Your task to perform on an android device: install app "NewsBreak: Local News & Alerts" Image 0: 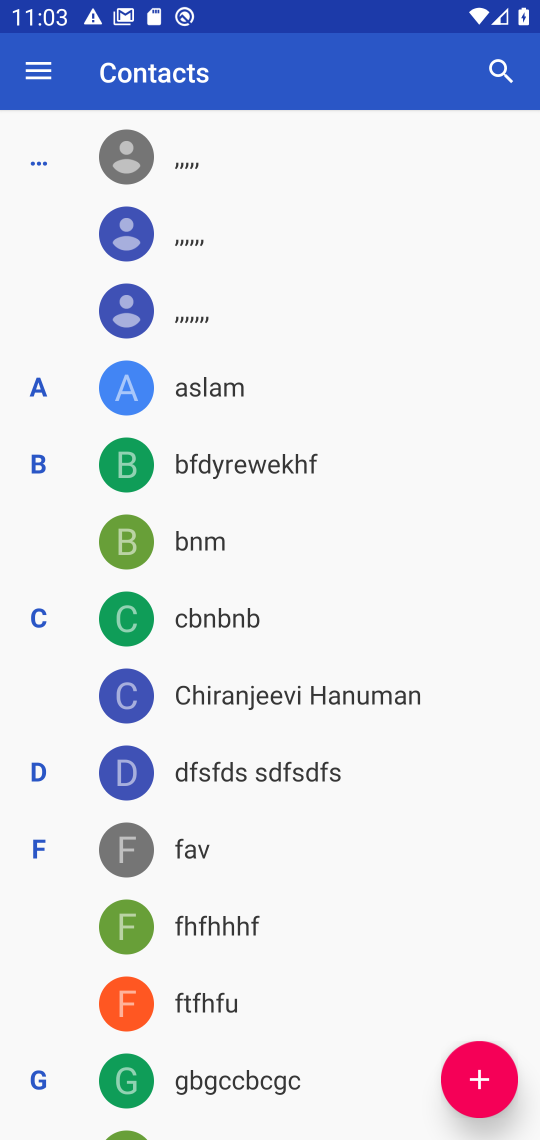
Step 0: press home button
Your task to perform on an android device: install app "NewsBreak: Local News & Alerts" Image 1: 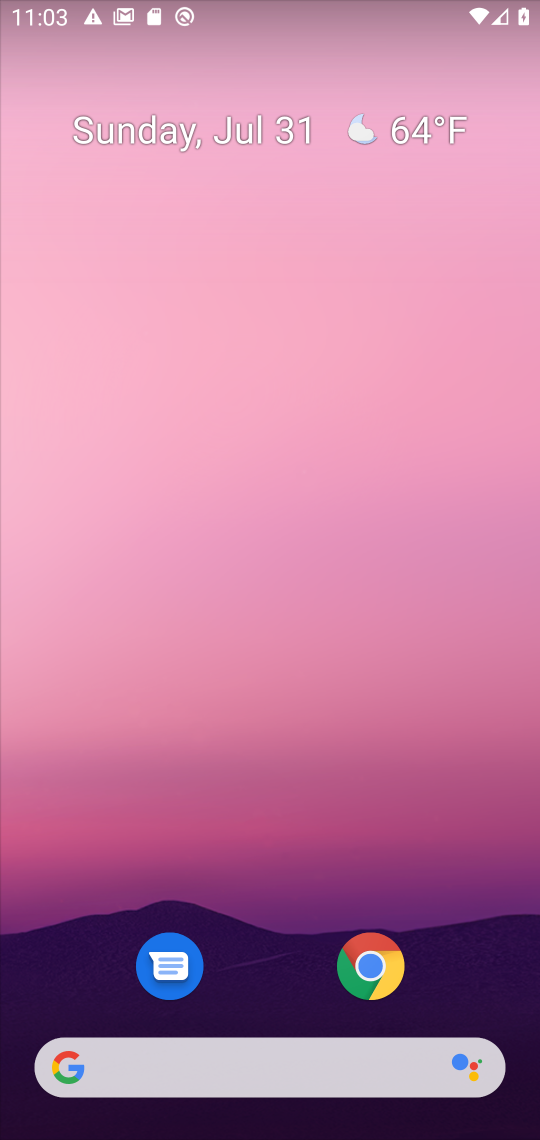
Step 1: drag from (278, 909) to (310, 24)
Your task to perform on an android device: install app "NewsBreak: Local News & Alerts" Image 2: 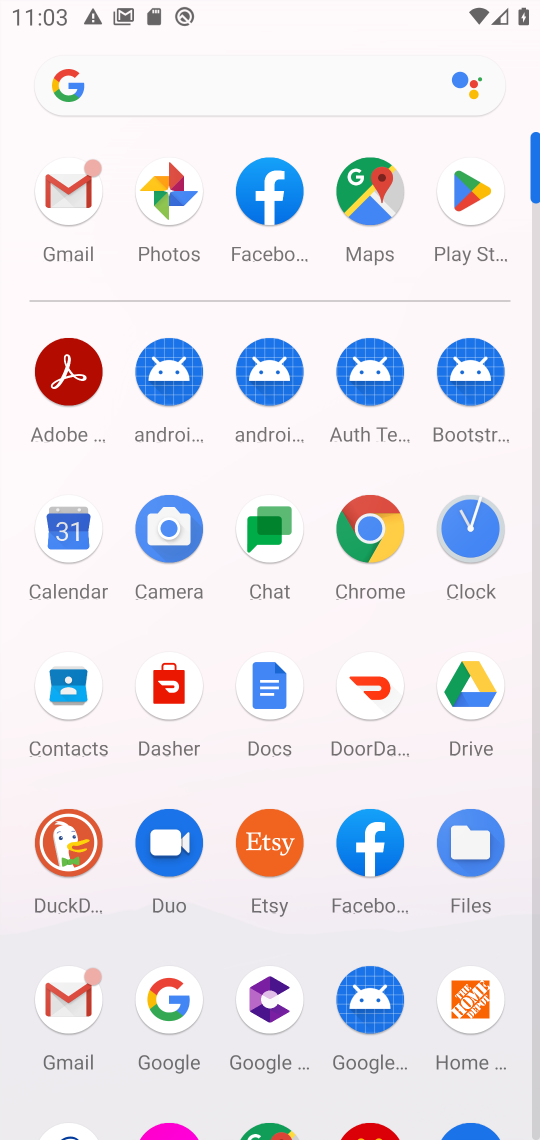
Step 2: click (467, 218)
Your task to perform on an android device: install app "NewsBreak: Local News & Alerts" Image 3: 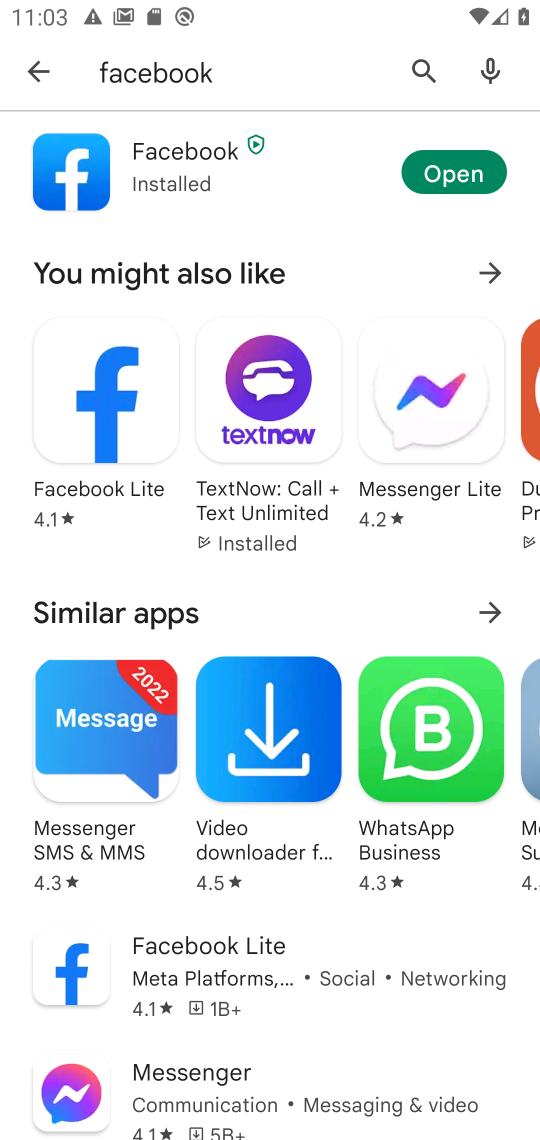
Step 3: click (256, 75)
Your task to perform on an android device: install app "NewsBreak: Local News & Alerts" Image 4: 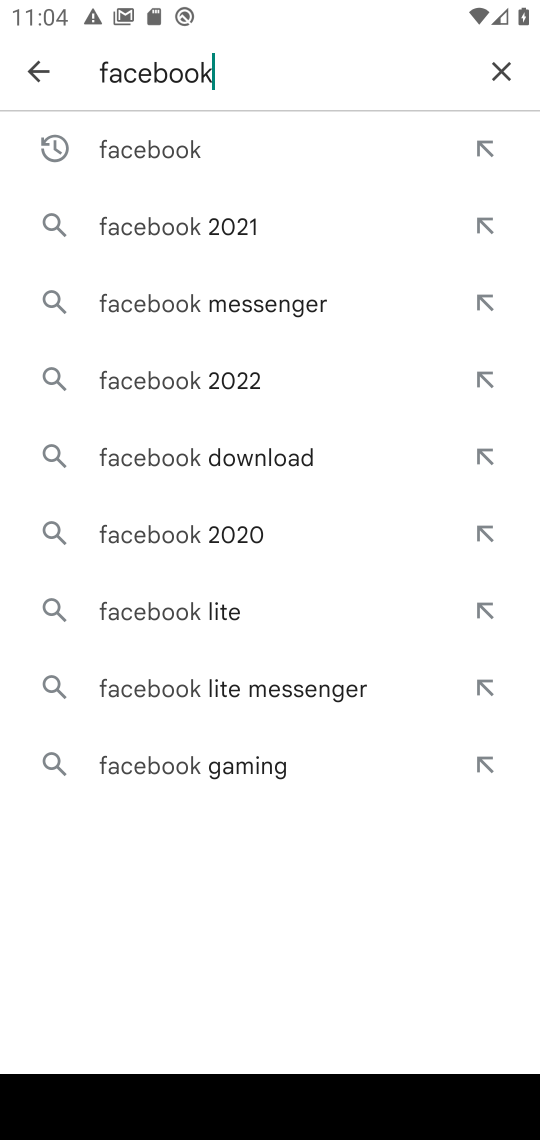
Step 4: click (520, 63)
Your task to perform on an android device: install app "NewsBreak: Local News & Alerts" Image 5: 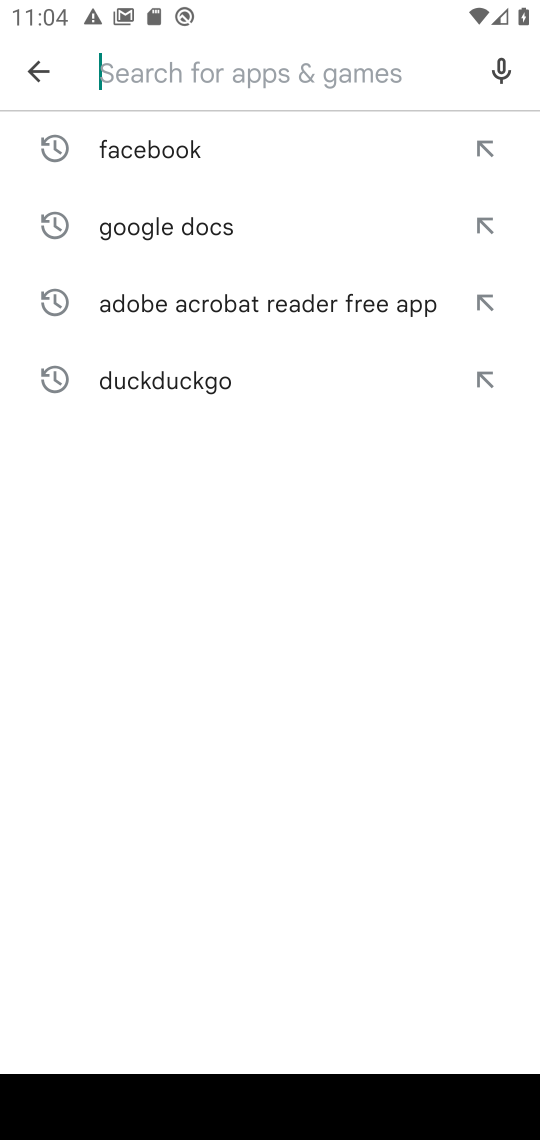
Step 5: type "newsbreak"
Your task to perform on an android device: install app "NewsBreak: Local News & Alerts" Image 6: 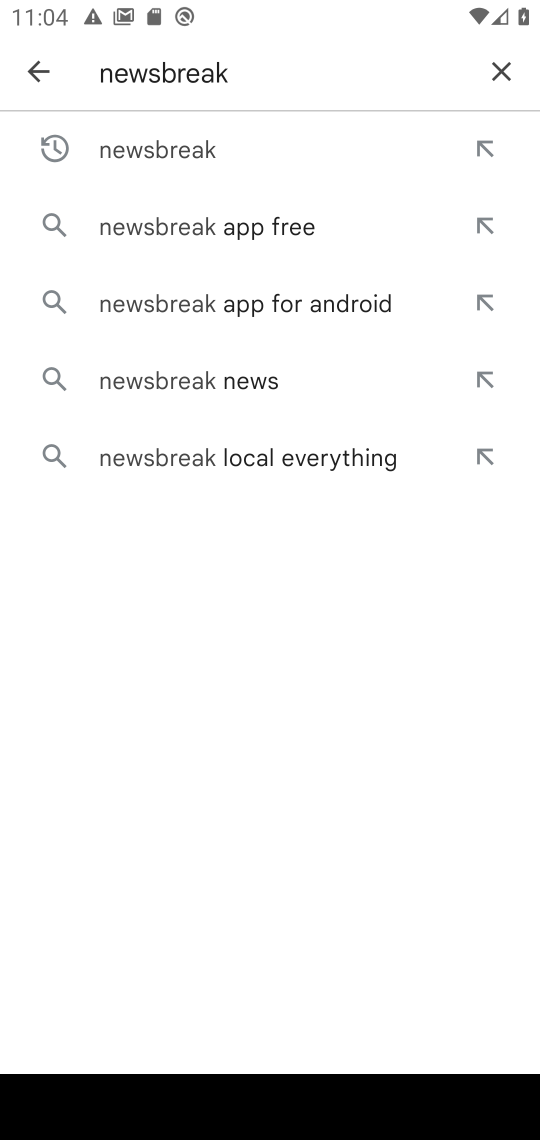
Step 6: click (213, 133)
Your task to perform on an android device: install app "NewsBreak: Local News & Alerts" Image 7: 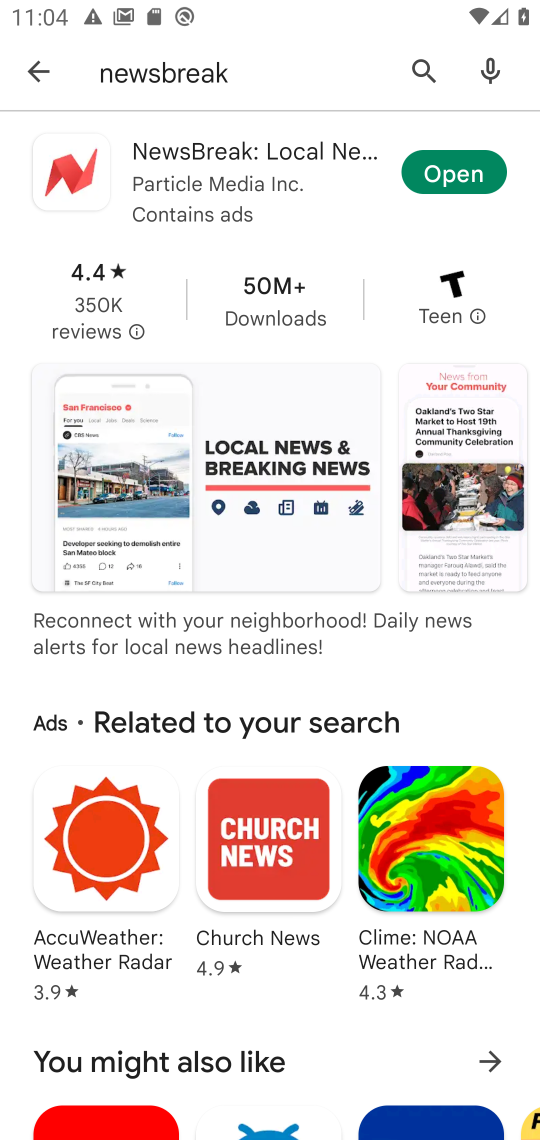
Step 7: task complete